Your task to perform on an android device: open a new tab in the chrome app Image 0: 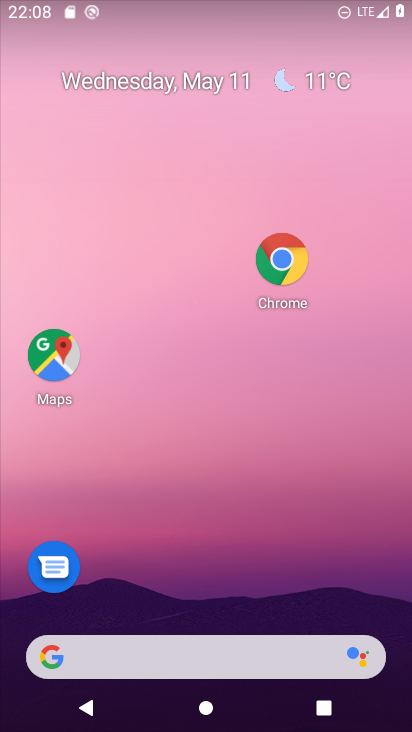
Step 0: click (285, 266)
Your task to perform on an android device: open a new tab in the chrome app Image 1: 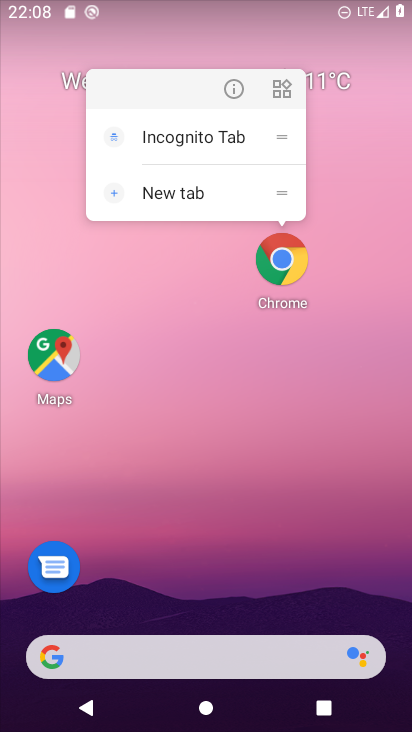
Step 1: click (282, 273)
Your task to perform on an android device: open a new tab in the chrome app Image 2: 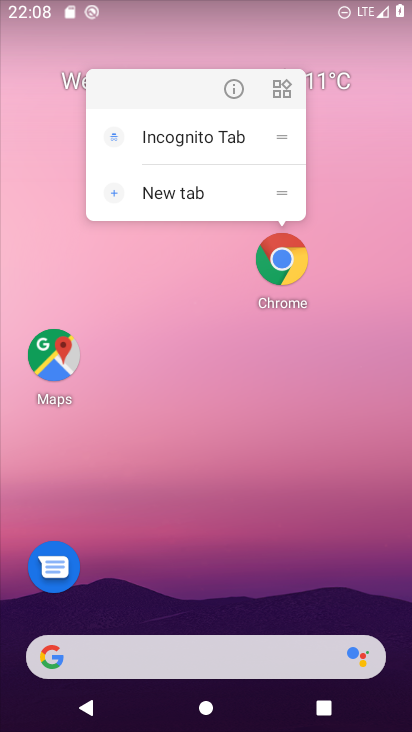
Step 2: click (282, 278)
Your task to perform on an android device: open a new tab in the chrome app Image 3: 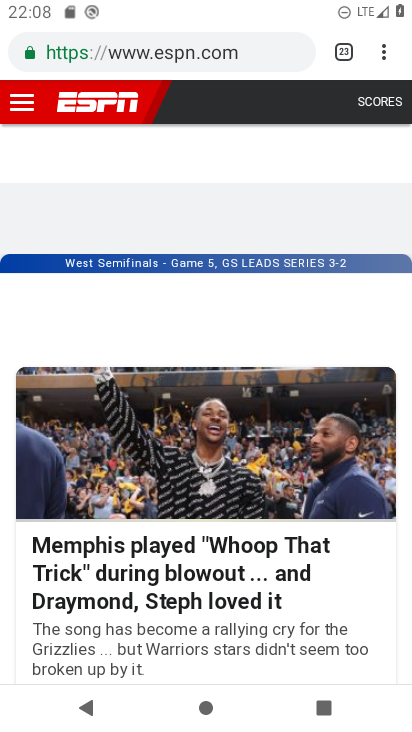
Step 3: task complete